Your task to perform on an android device: open app "Booking.com: Hotels and more" (install if not already installed) Image 0: 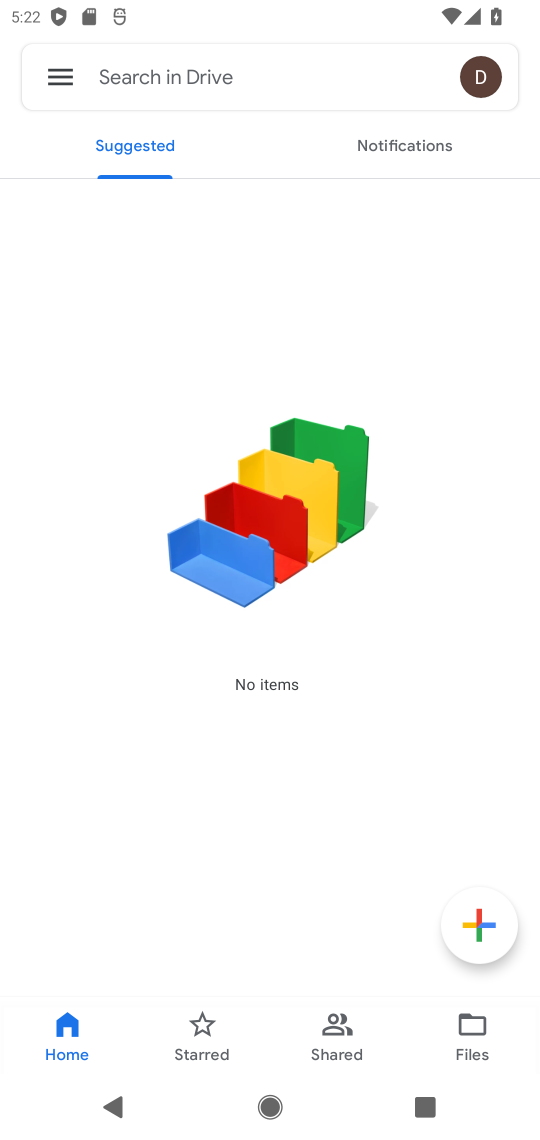
Step 0: press back button
Your task to perform on an android device: open app "Booking.com: Hotels and more" (install if not already installed) Image 1: 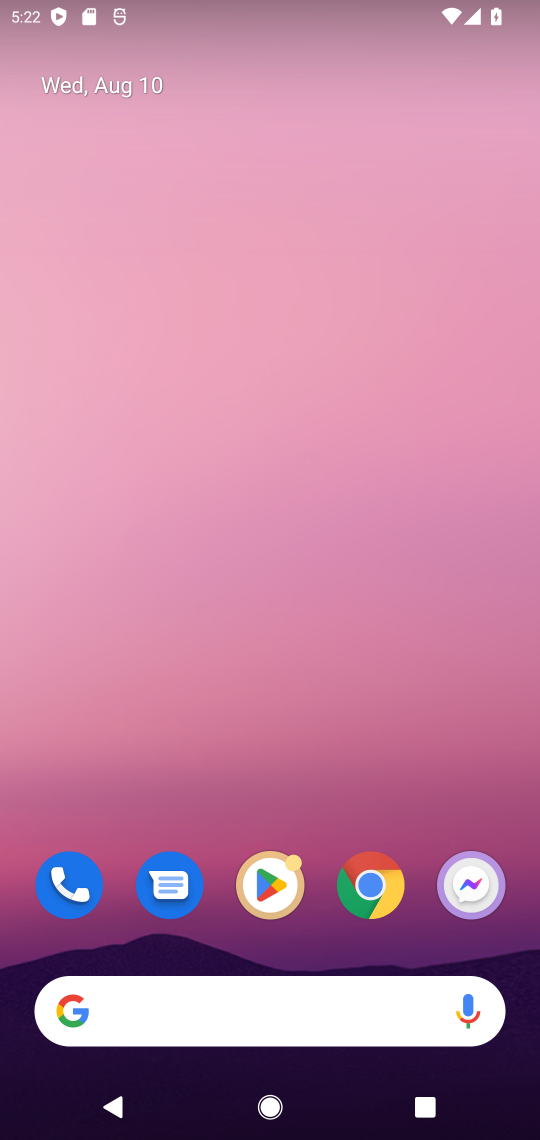
Step 1: click (269, 888)
Your task to perform on an android device: open app "Booking.com: Hotels and more" (install if not already installed) Image 2: 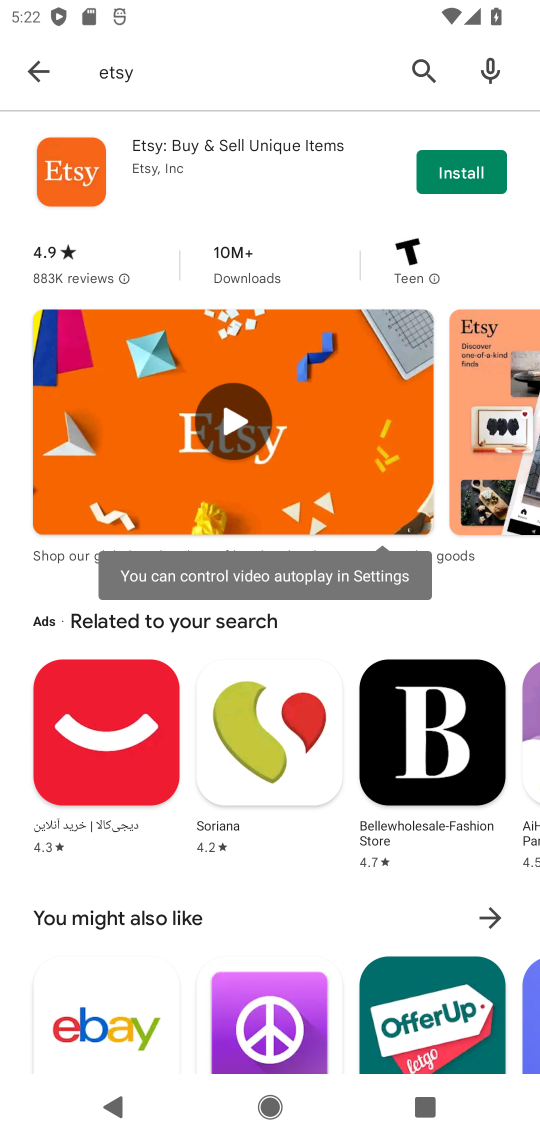
Step 2: click (445, 61)
Your task to perform on an android device: open app "Booking.com: Hotels and more" (install if not already installed) Image 3: 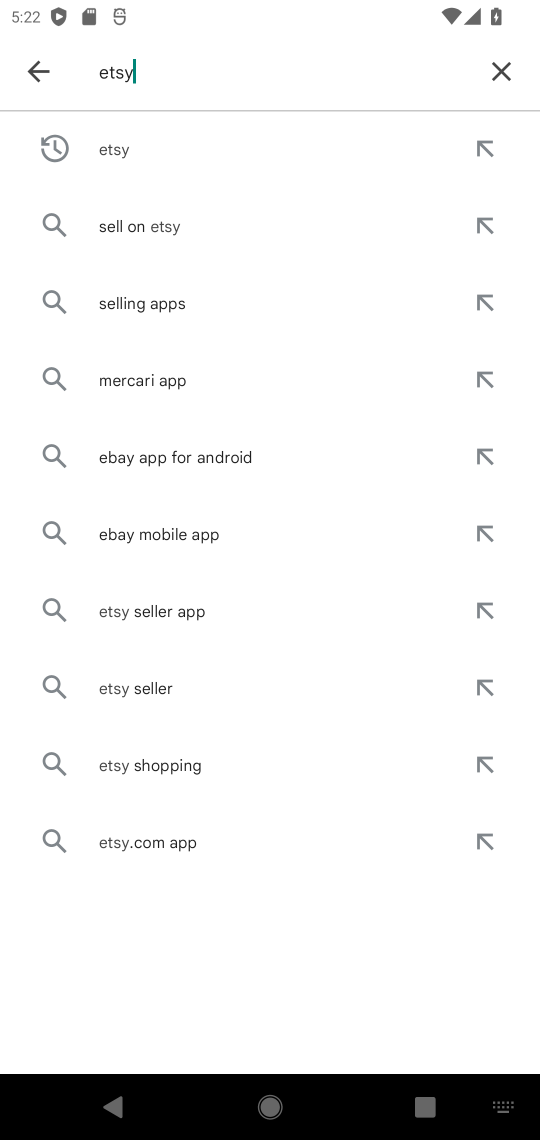
Step 3: click (505, 70)
Your task to perform on an android device: open app "Booking.com: Hotels and more" (install if not already installed) Image 4: 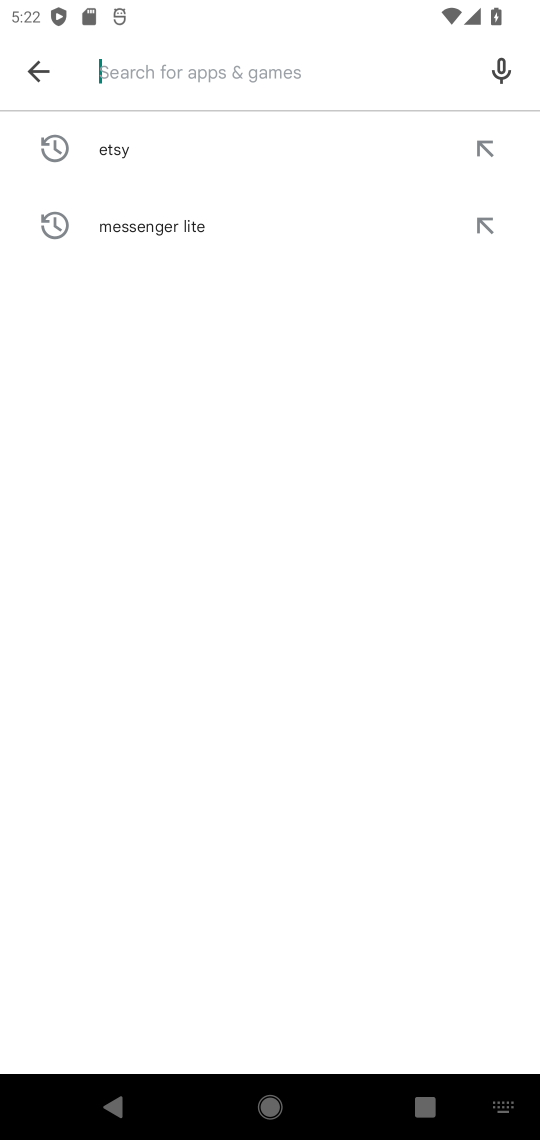
Step 4: click (166, 79)
Your task to perform on an android device: open app "Booking.com: Hotels and more" (install if not already installed) Image 5: 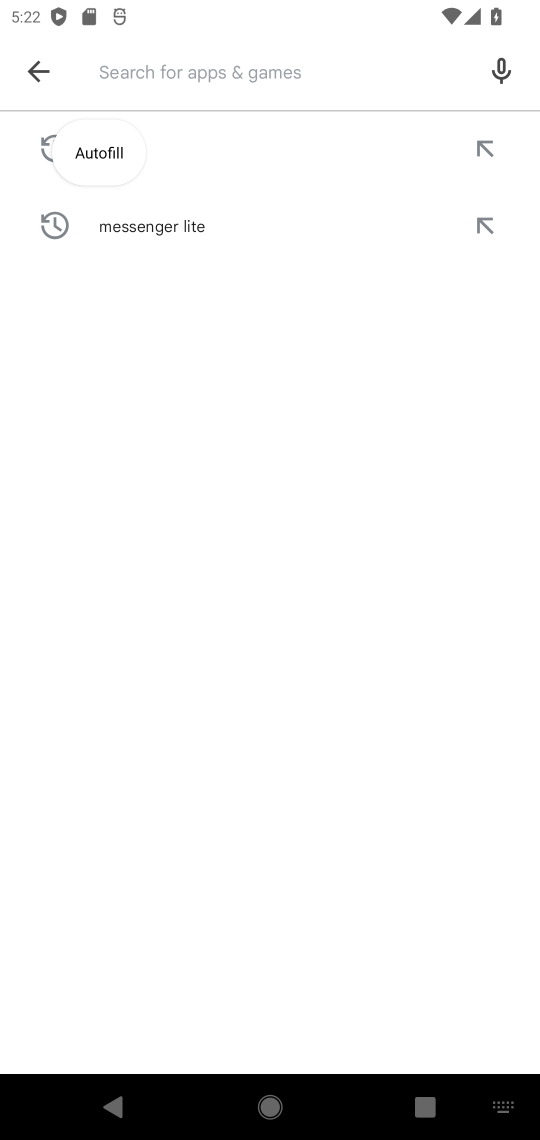
Step 5: type "Booking.com"
Your task to perform on an android device: open app "Booking.com: Hotels and more" (install if not already installed) Image 6: 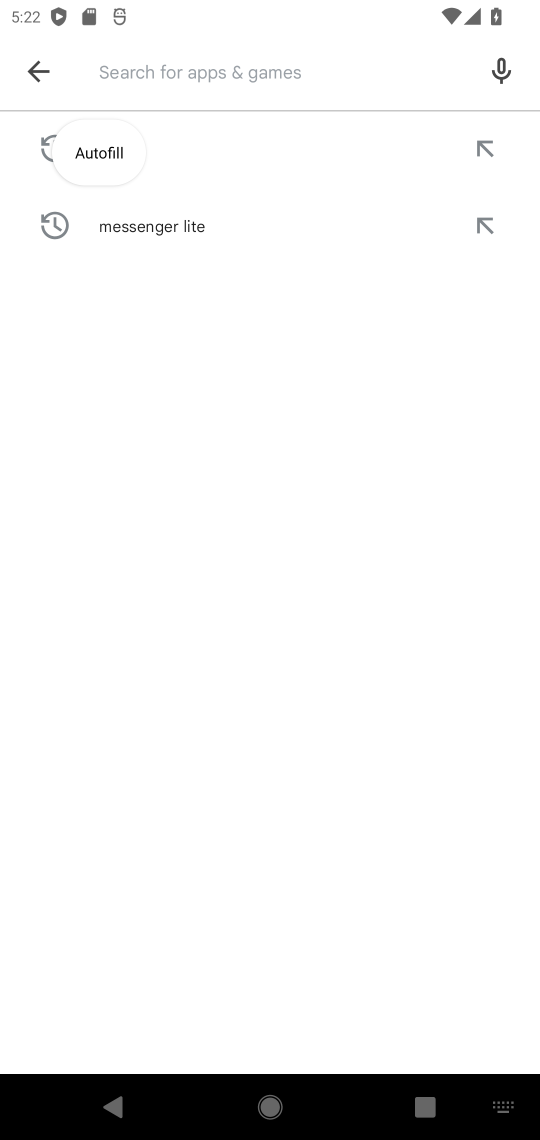
Step 6: click (333, 521)
Your task to perform on an android device: open app "Booking.com: Hotels and more" (install if not already installed) Image 7: 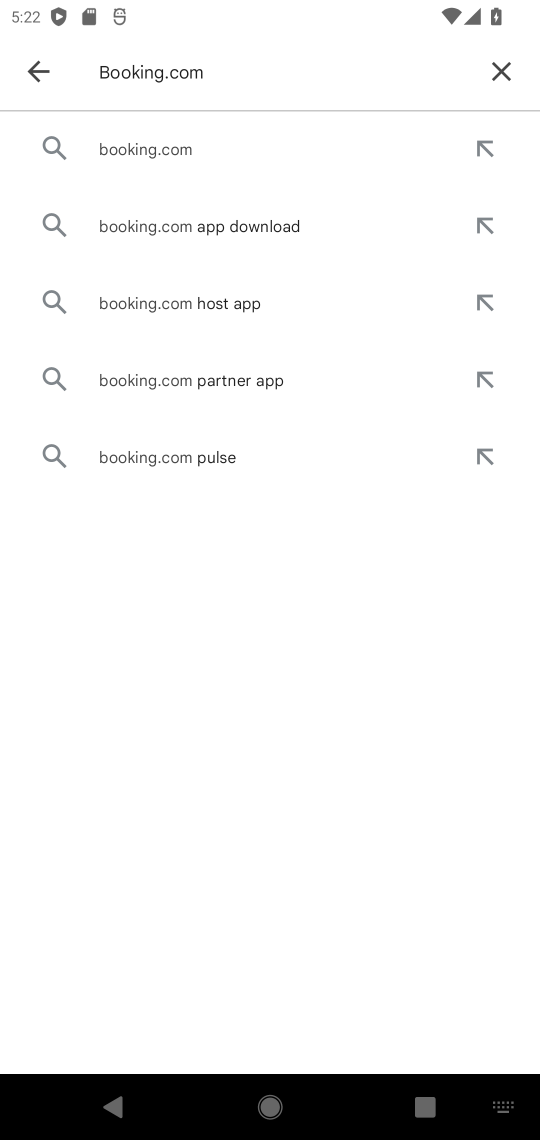
Step 7: click (163, 161)
Your task to perform on an android device: open app "Booking.com: Hotels and more" (install if not already installed) Image 8: 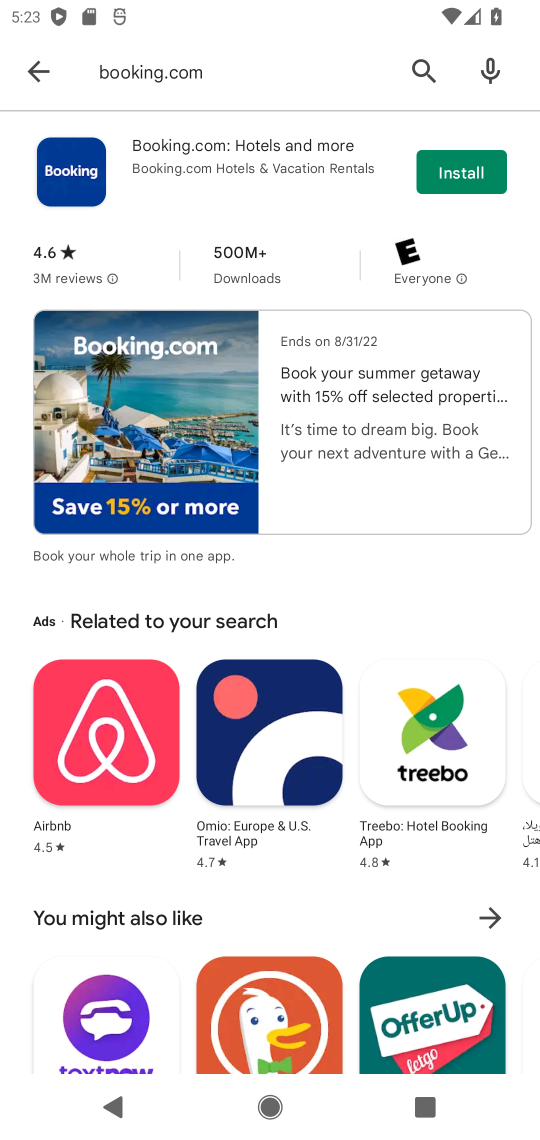
Step 8: click (460, 176)
Your task to perform on an android device: open app "Booking.com: Hotels and more" (install if not already installed) Image 9: 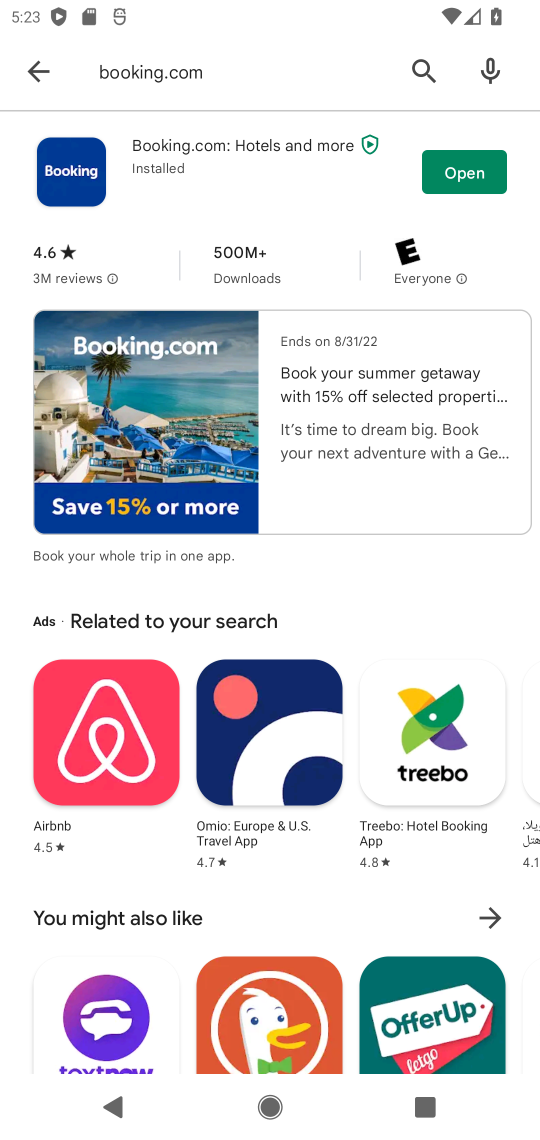
Step 9: click (465, 169)
Your task to perform on an android device: open app "Booking.com: Hotels and more" (install if not already installed) Image 10: 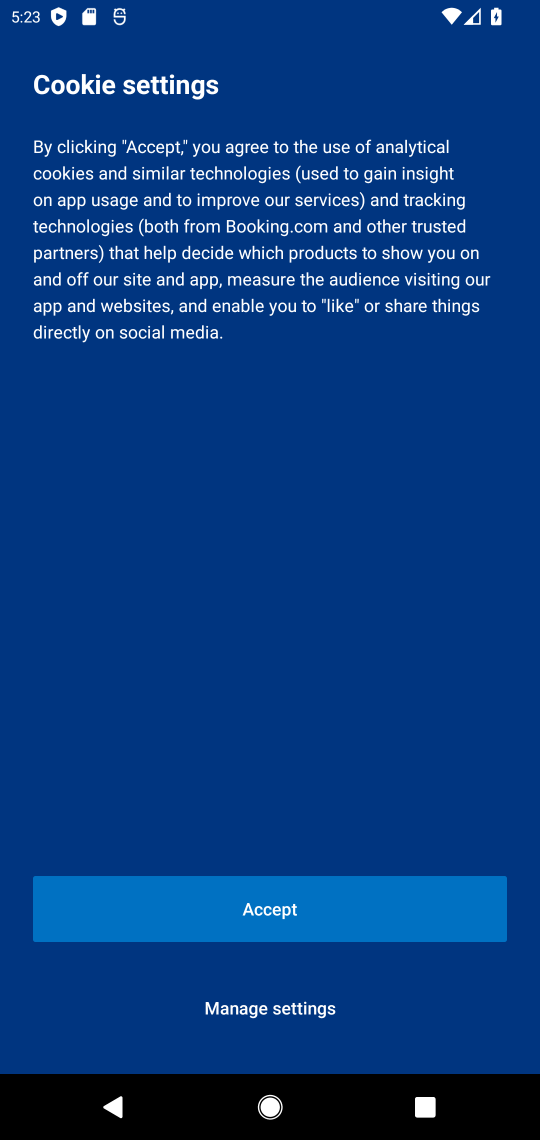
Step 10: task complete